Your task to perform on an android device: turn notification dots off Image 0: 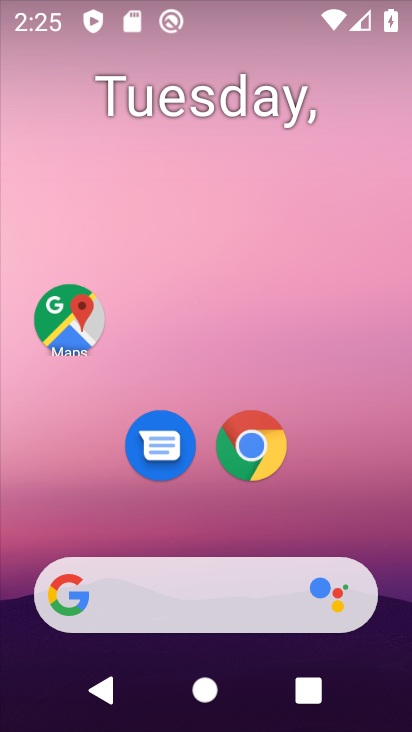
Step 0: drag from (319, 230) to (320, 195)
Your task to perform on an android device: turn notification dots off Image 1: 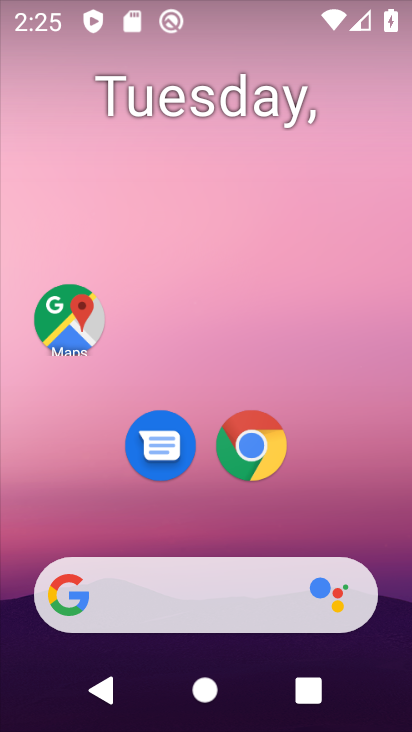
Step 1: drag from (368, 406) to (380, 15)
Your task to perform on an android device: turn notification dots off Image 2: 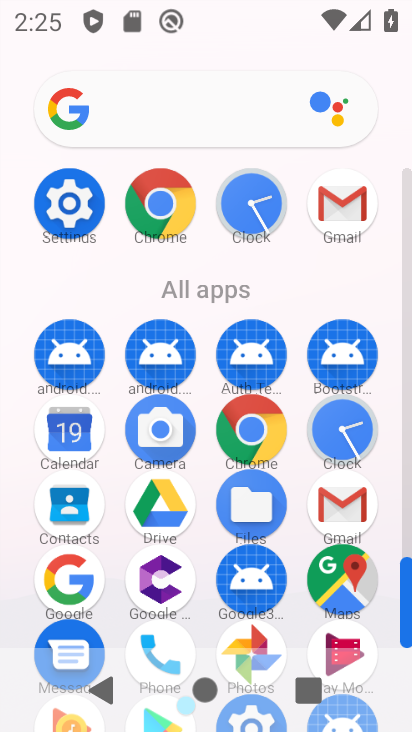
Step 2: click (66, 221)
Your task to perform on an android device: turn notification dots off Image 3: 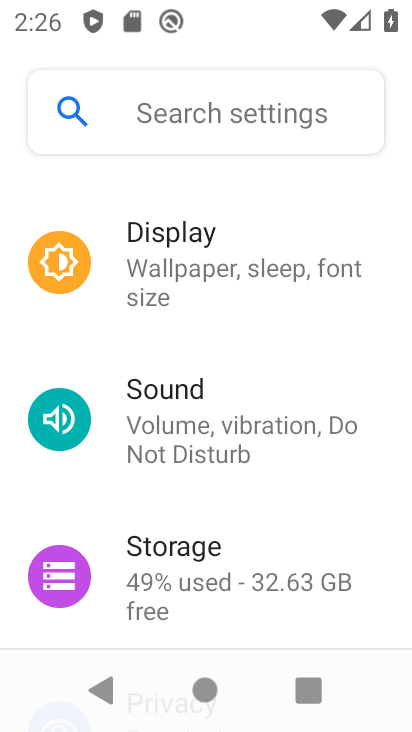
Step 3: drag from (154, 524) to (124, 136)
Your task to perform on an android device: turn notification dots off Image 4: 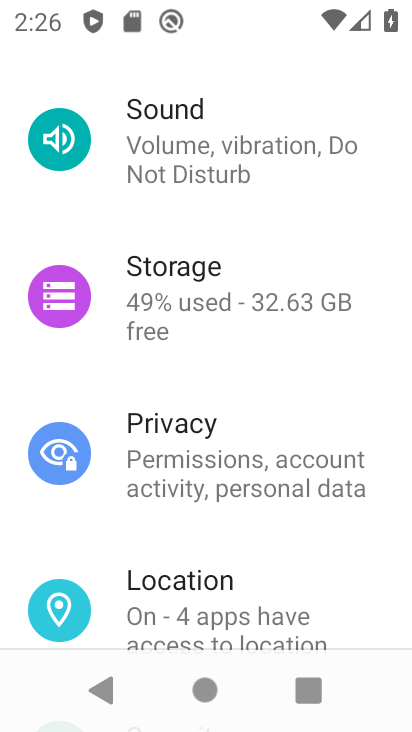
Step 4: drag from (157, 555) to (194, 179)
Your task to perform on an android device: turn notification dots off Image 5: 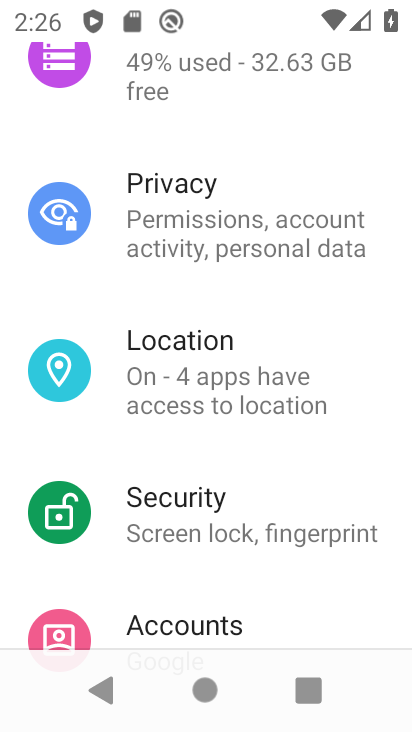
Step 5: drag from (266, 557) to (302, 73)
Your task to perform on an android device: turn notification dots off Image 6: 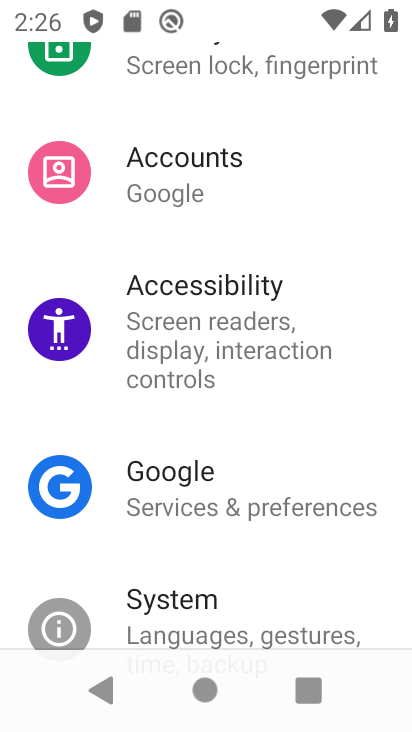
Step 6: drag from (308, 537) to (396, 110)
Your task to perform on an android device: turn notification dots off Image 7: 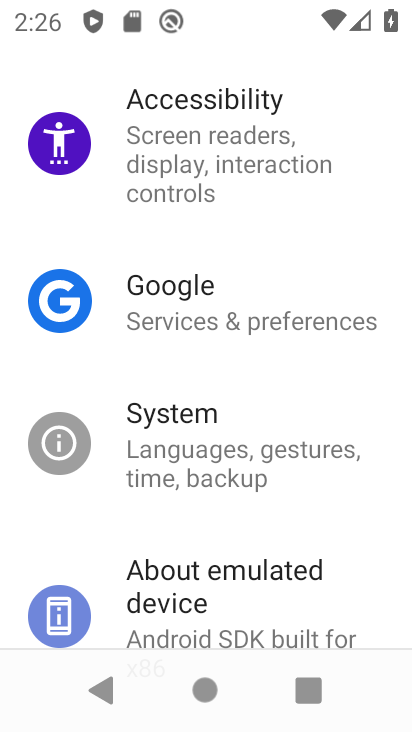
Step 7: drag from (247, 436) to (247, 121)
Your task to perform on an android device: turn notification dots off Image 8: 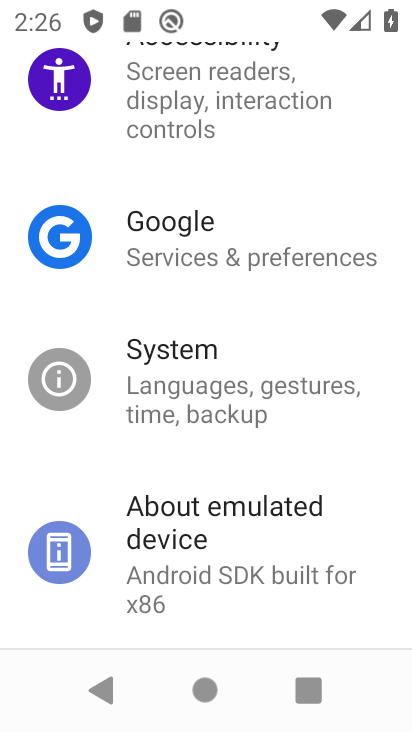
Step 8: drag from (218, 517) to (245, 179)
Your task to perform on an android device: turn notification dots off Image 9: 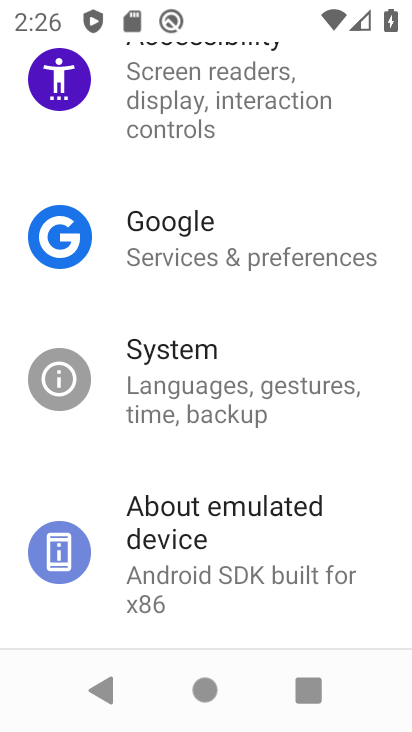
Step 9: drag from (259, 204) to (269, 532)
Your task to perform on an android device: turn notification dots off Image 10: 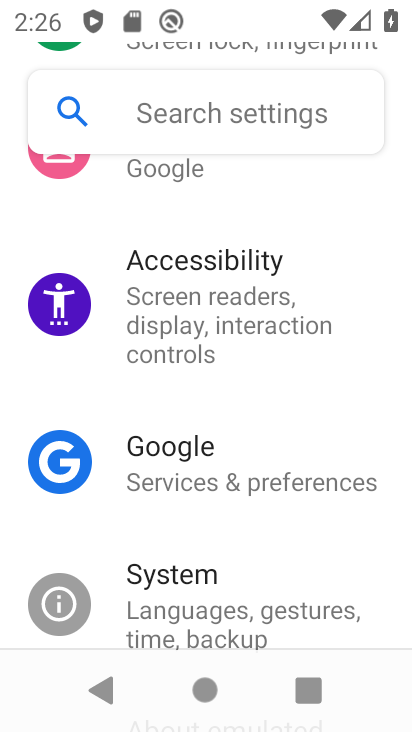
Step 10: drag from (302, 297) to (279, 529)
Your task to perform on an android device: turn notification dots off Image 11: 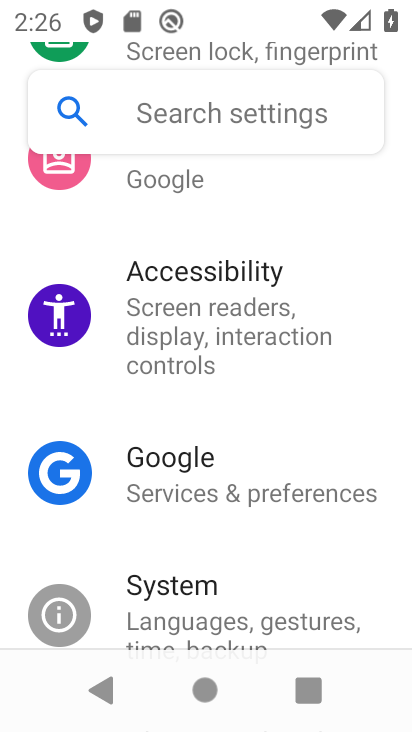
Step 11: drag from (250, 288) to (255, 558)
Your task to perform on an android device: turn notification dots off Image 12: 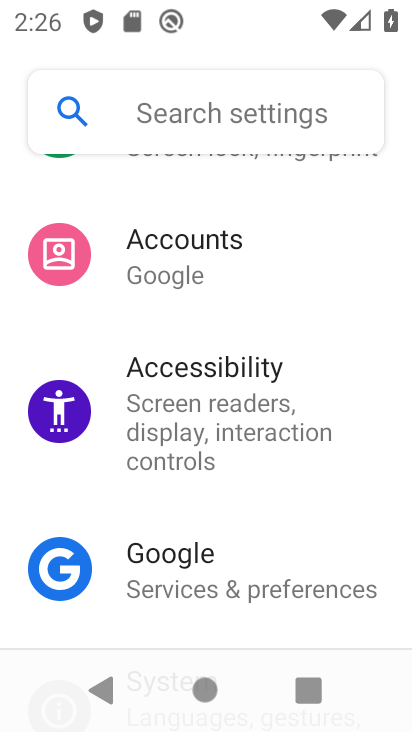
Step 12: drag from (286, 307) to (258, 557)
Your task to perform on an android device: turn notification dots off Image 13: 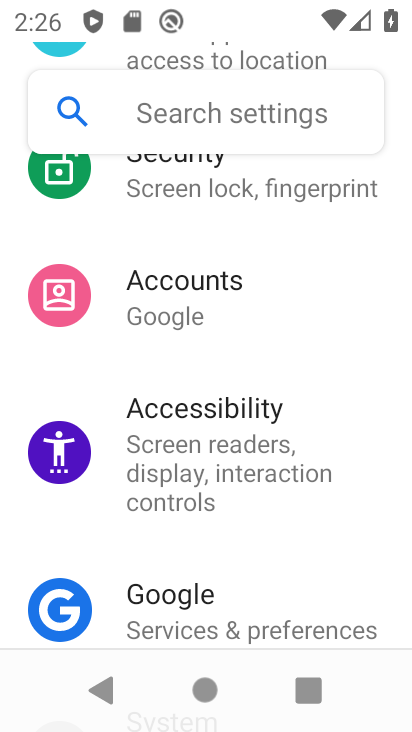
Step 13: drag from (236, 210) to (262, 565)
Your task to perform on an android device: turn notification dots off Image 14: 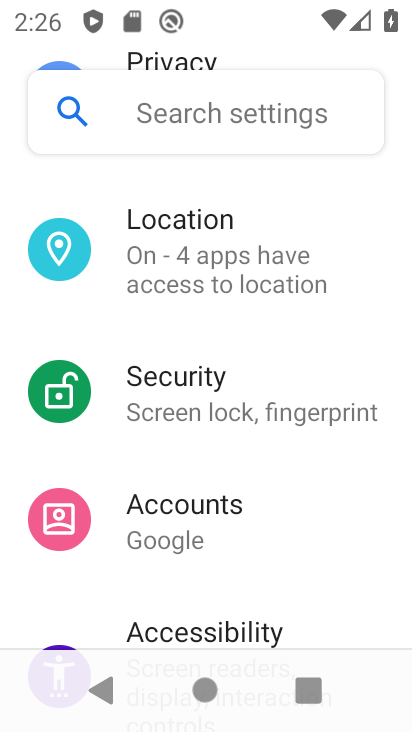
Step 14: drag from (287, 280) to (331, 603)
Your task to perform on an android device: turn notification dots off Image 15: 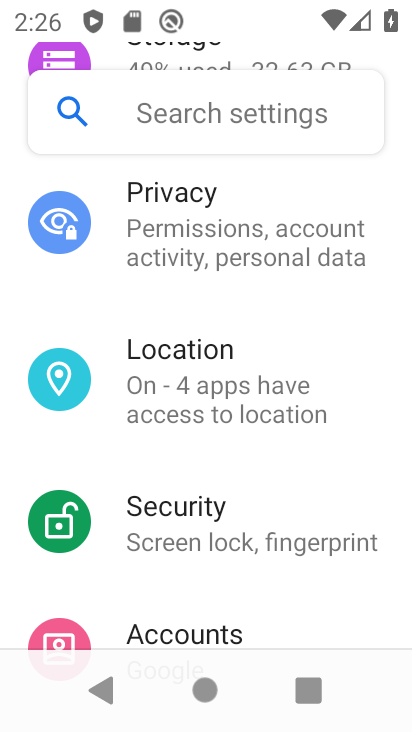
Step 15: drag from (255, 463) to (286, 623)
Your task to perform on an android device: turn notification dots off Image 16: 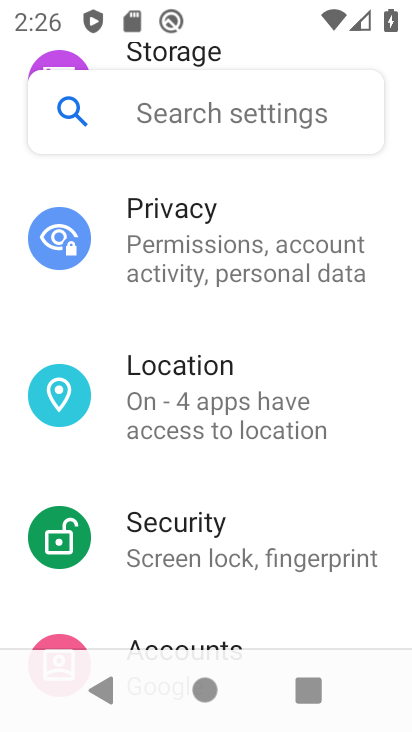
Step 16: drag from (273, 242) to (272, 579)
Your task to perform on an android device: turn notification dots off Image 17: 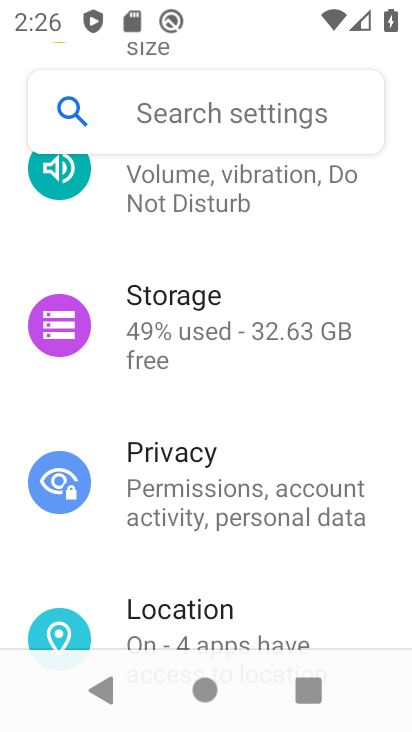
Step 17: drag from (264, 233) to (296, 589)
Your task to perform on an android device: turn notification dots off Image 18: 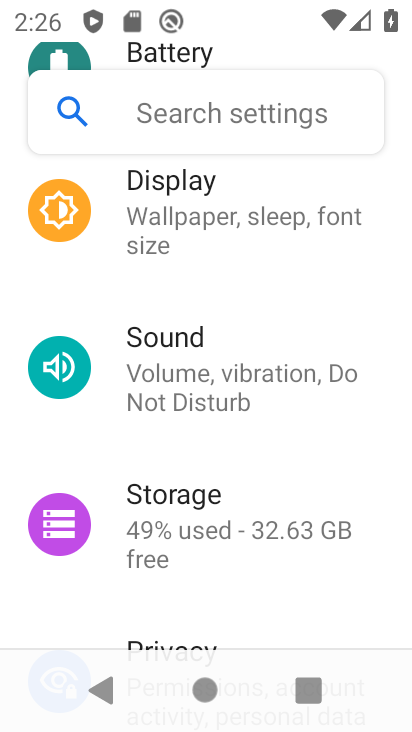
Step 18: drag from (291, 237) to (340, 557)
Your task to perform on an android device: turn notification dots off Image 19: 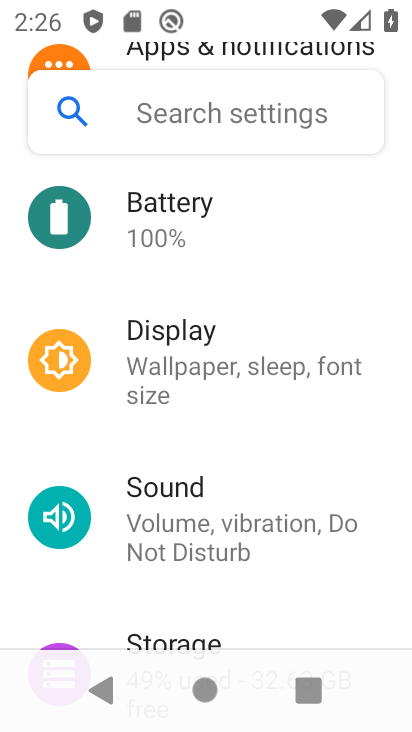
Step 19: drag from (356, 211) to (349, 559)
Your task to perform on an android device: turn notification dots off Image 20: 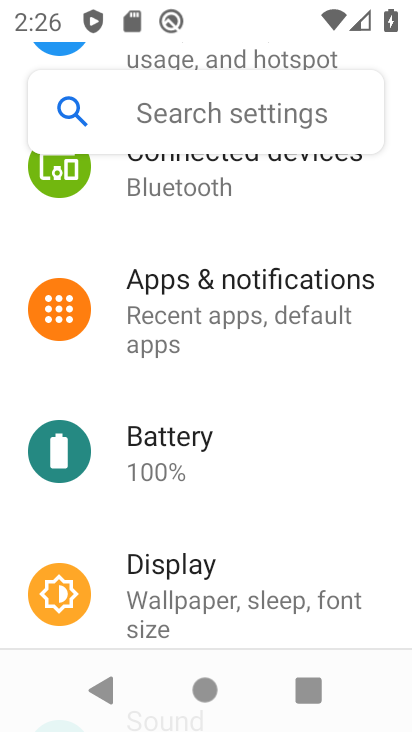
Step 20: drag from (288, 334) to (284, 646)
Your task to perform on an android device: turn notification dots off Image 21: 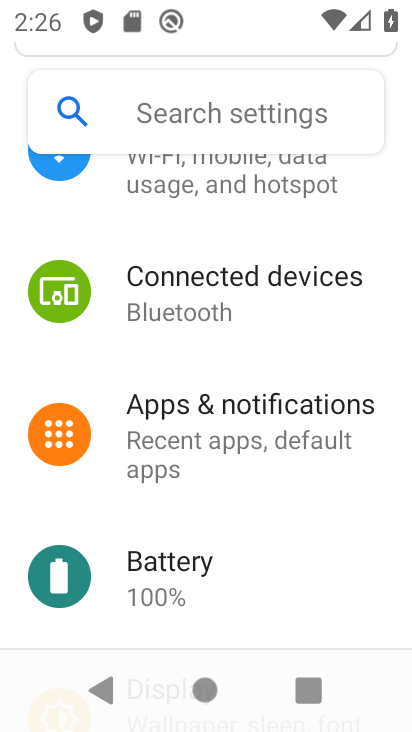
Step 21: drag from (272, 385) to (272, 626)
Your task to perform on an android device: turn notification dots off Image 22: 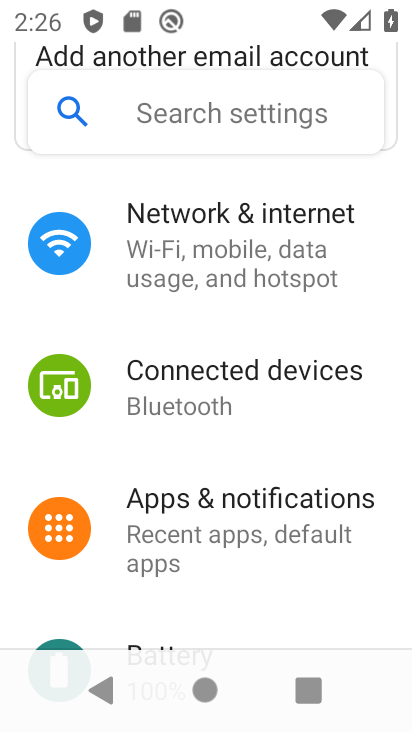
Step 22: drag from (236, 217) to (246, 575)
Your task to perform on an android device: turn notification dots off Image 23: 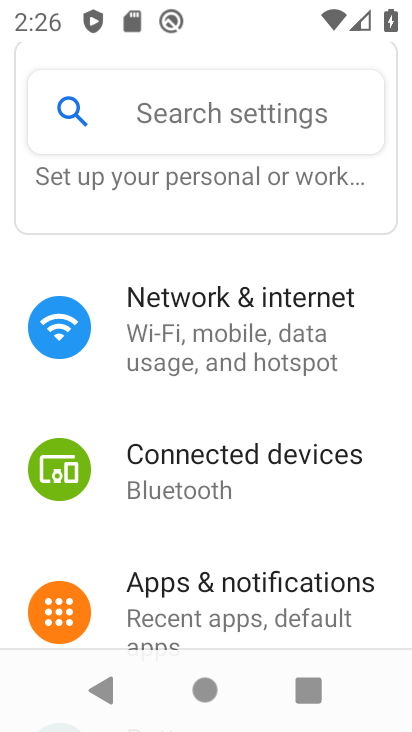
Step 23: click (247, 598)
Your task to perform on an android device: turn notification dots off Image 24: 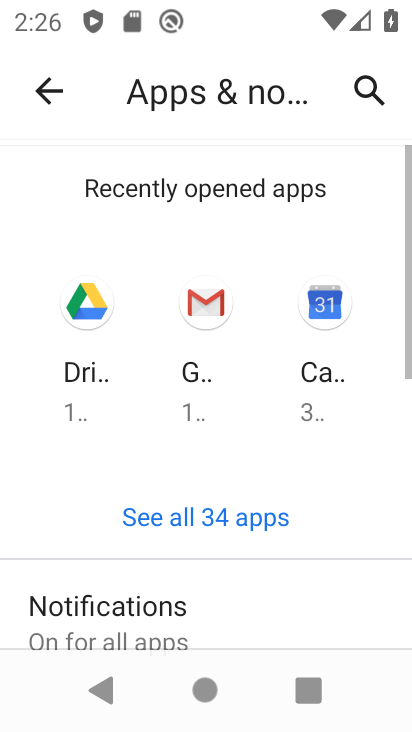
Step 24: drag from (266, 553) to (192, 115)
Your task to perform on an android device: turn notification dots off Image 25: 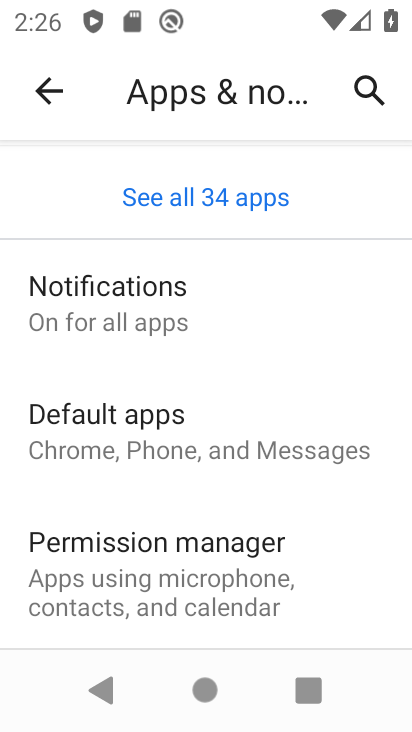
Step 25: click (107, 304)
Your task to perform on an android device: turn notification dots off Image 26: 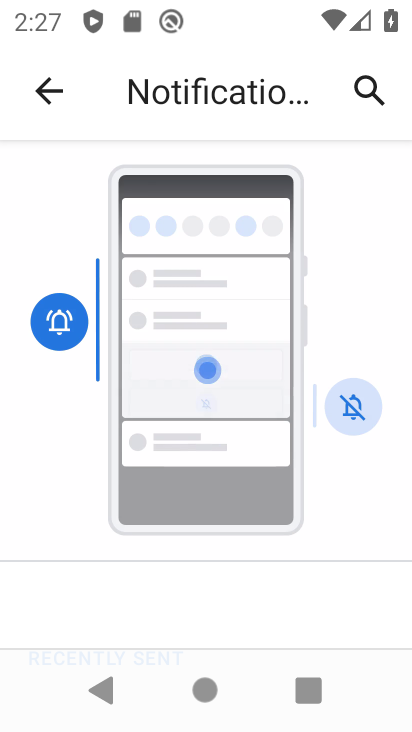
Step 26: drag from (102, 494) to (141, 94)
Your task to perform on an android device: turn notification dots off Image 27: 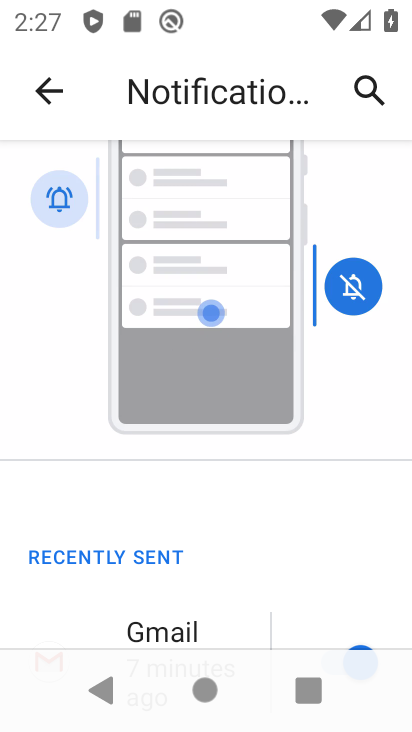
Step 27: drag from (201, 433) to (270, 110)
Your task to perform on an android device: turn notification dots off Image 28: 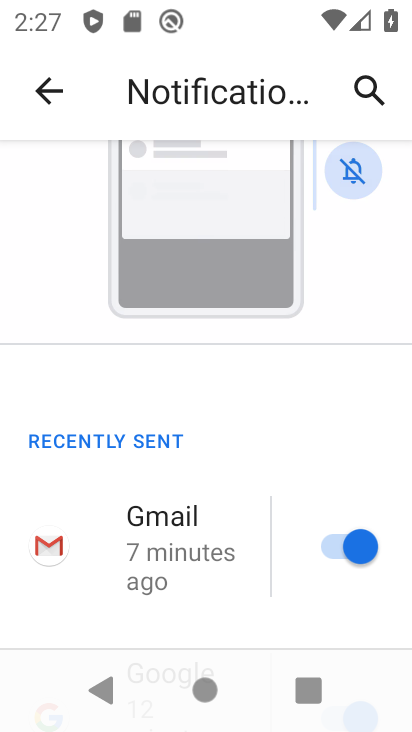
Step 28: drag from (159, 578) to (213, 65)
Your task to perform on an android device: turn notification dots off Image 29: 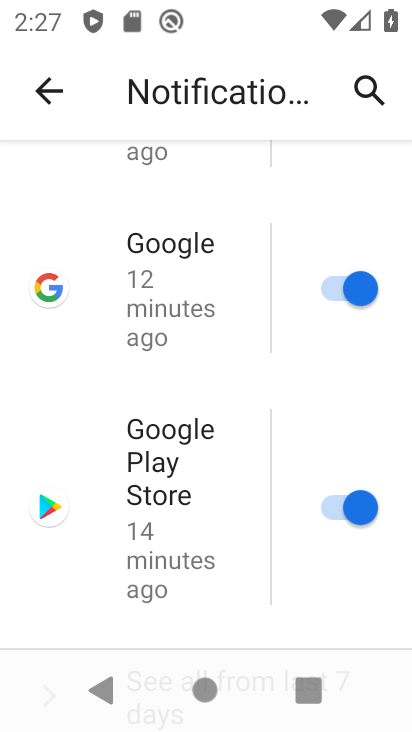
Step 29: drag from (130, 580) to (137, 179)
Your task to perform on an android device: turn notification dots off Image 30: 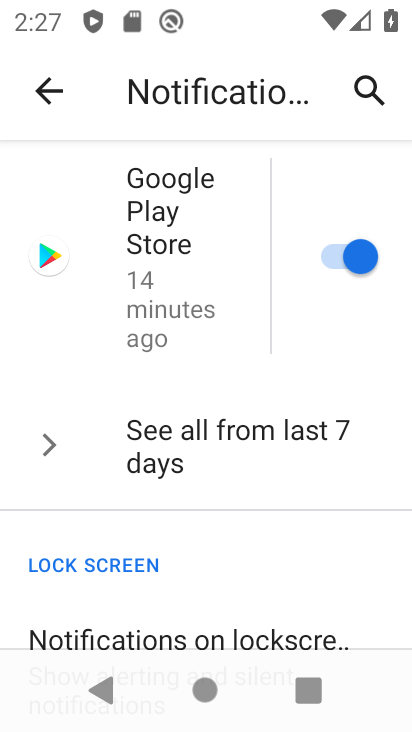
Step 30: drag from (200, 549) to (313, 129)
Your task to perform on an android device: turn notification dots off Image 31: 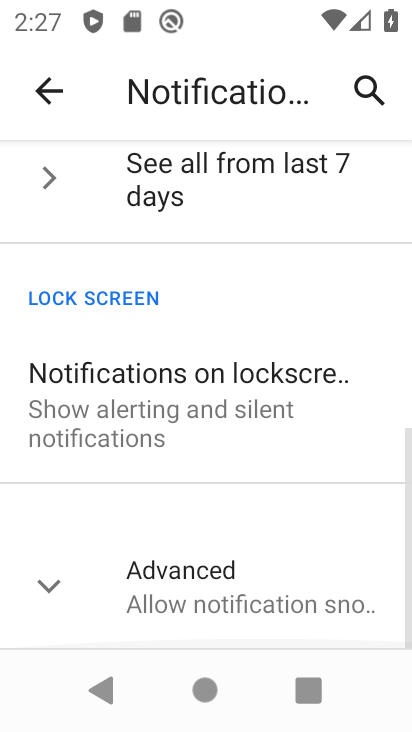
Step 31: drag from (194, 603) to (198, 291)
Your task to perform on an android device: turn notification dots off Image 32: 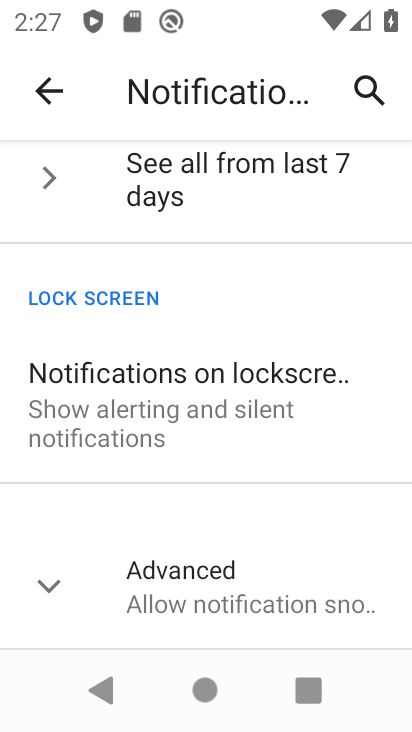
Step 32: click (200, 609)
Your task to perform on an android device: turn notification dots off Image 33: 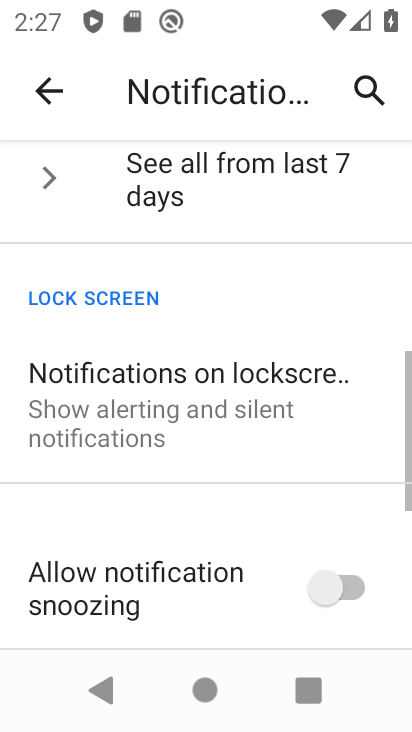
Step 33: drag from (184, 506) to (146, 353)
Your task to perform on an android device: turn notification dots off Image 34: 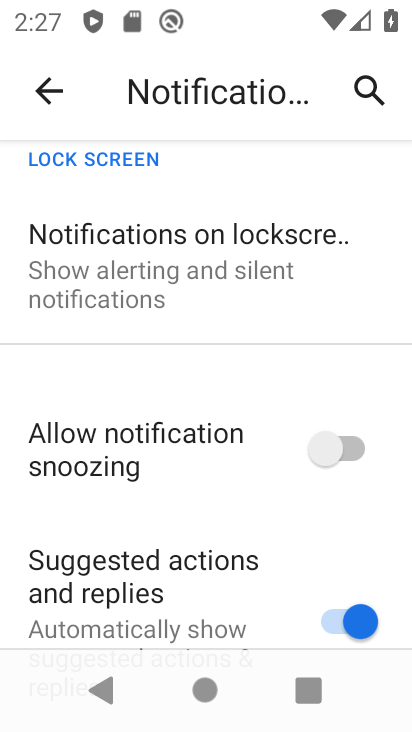
Step 34: drag from (164, 600) to (145, 240)
Your task to perform on an android device: turn notification dots off Image 35: 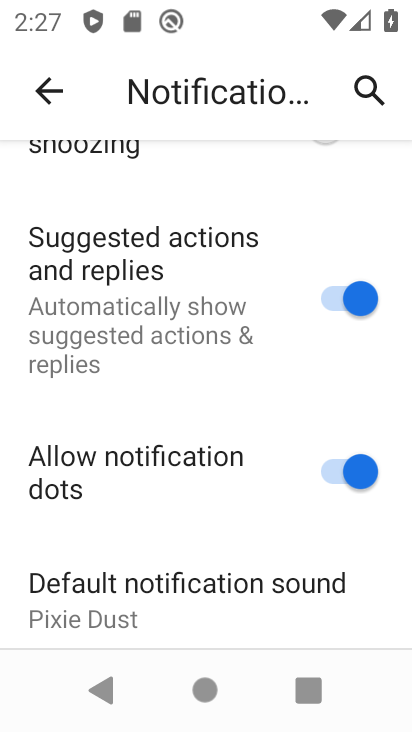
Step 35: drag from (150, 549) to (144, 249)
Your task to perform on an android device: turn notification dots off Image 36: 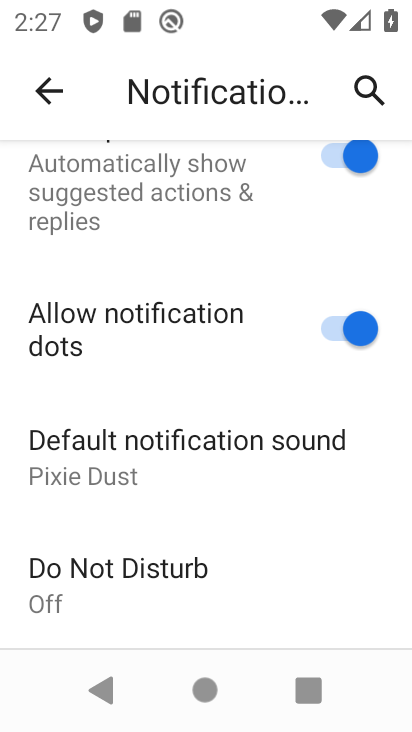
Step 36: click (339, 334)
Your task to perform on an android device: turn notification dots off Image 37: 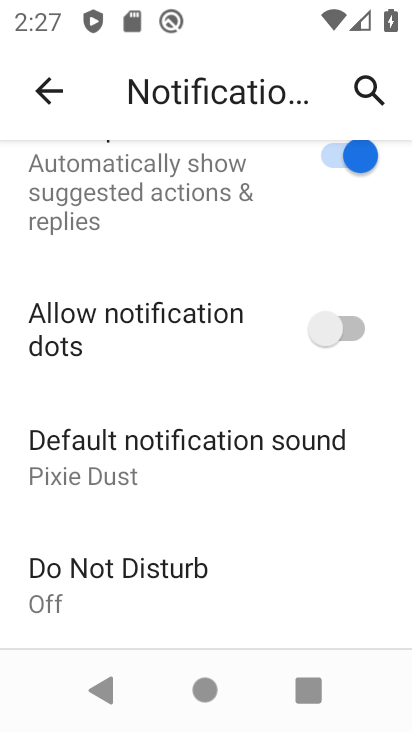
Step 37: task complete